Your task to perform on an android device: Open wifi settings Image 0: 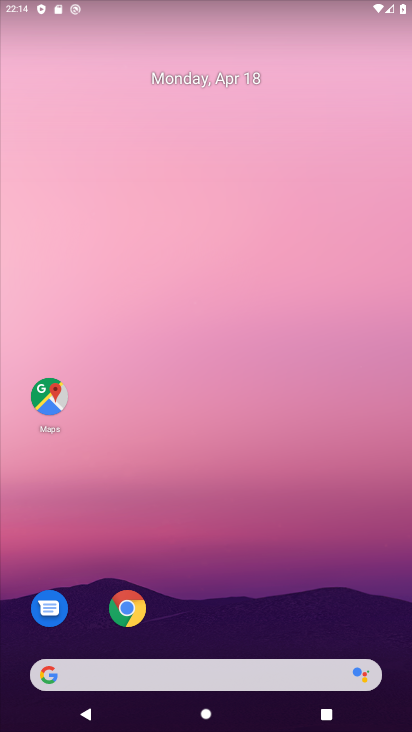
Step 0: drag from (213, 572) to (247, 64)
Your task to perform on an android device: Open wifi settings Image 1: 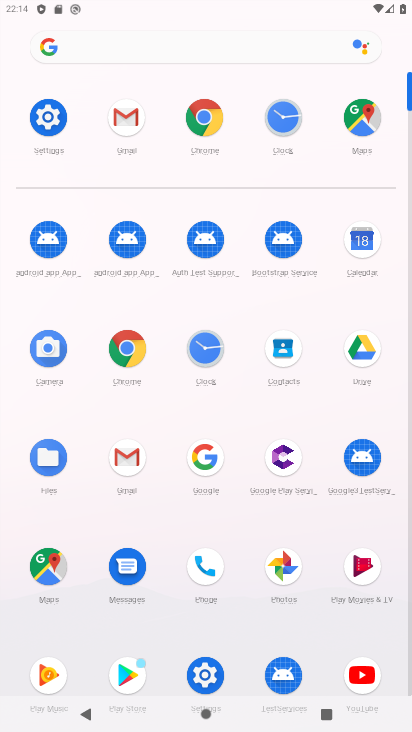
Step 1: click (45, 119)
Your task to perform on an android device: Open wifi settings Image 2: 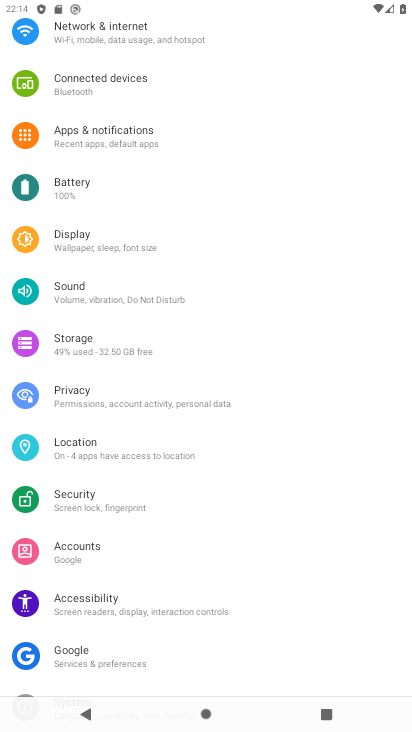
Step 2: drag from (168, 51) to (184, 401)
Your task to perform on an android device: Open wifi settings Image 3: 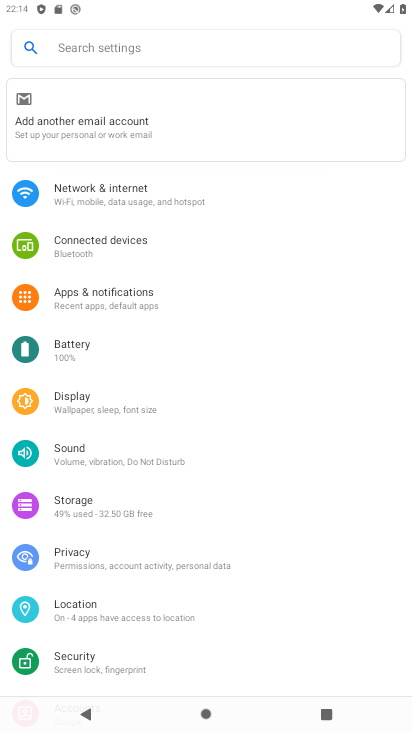
Step 3: click (140, 187)
Your task to perform on an android device: Open wifi settings Image 4: 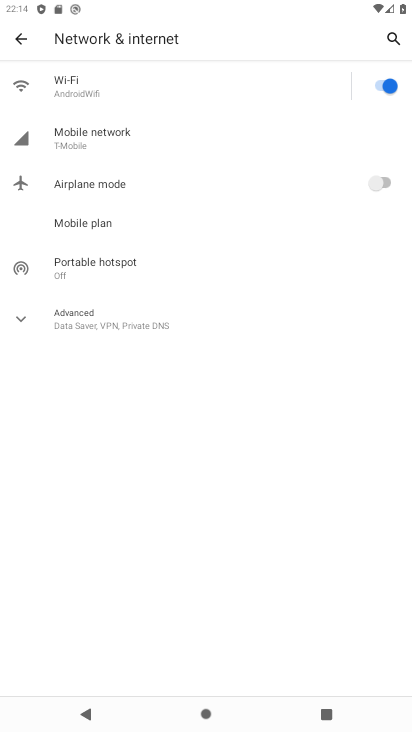
Step 4: click (156, 92)
Your task to perform on an android device: Open wifi settings Image 5: 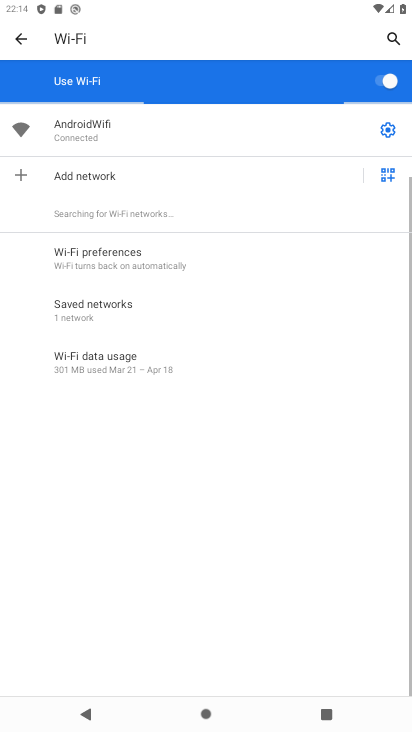
Step 5: click (390, 132)
Your task to perform on an android device: Open wifi settings Image 6: 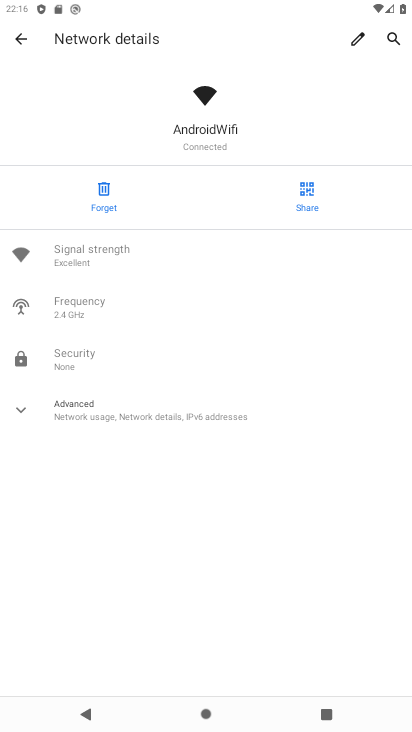
Step 6: task complete